Your task to perform on an android device: Open internet settings Image 0: 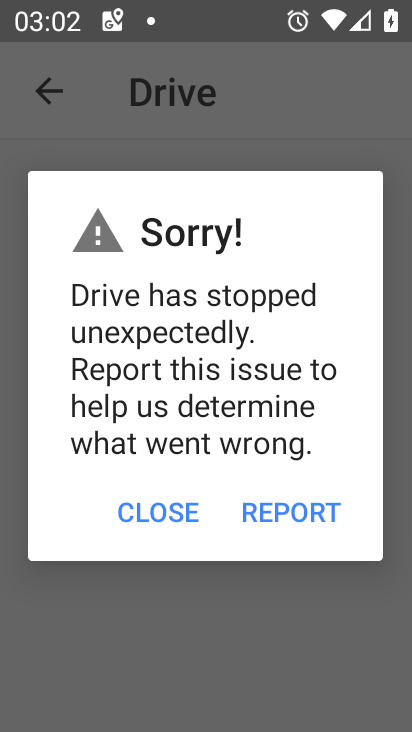
Step 0: press home button
Your task to perform on an android device: Open internet settings Image 1: 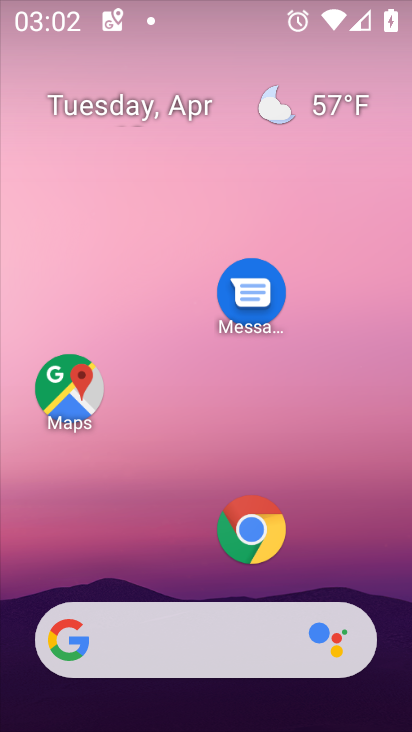
Step 1: drag from (122, 370) to (113, 87)
Your task to perform on an android device: Open internet settings Image 2: 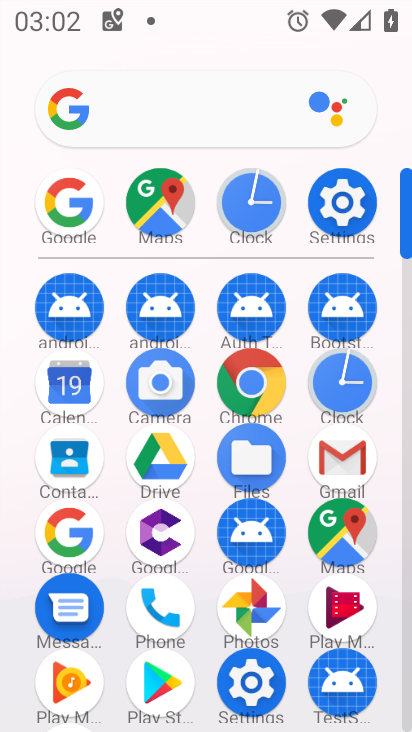
Step 2: click (335, 201)
Your task to perform on an android device: Open internet settings Image 3: 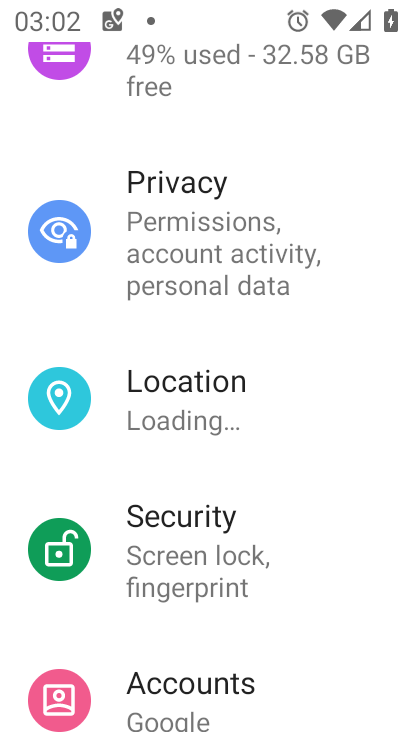
Step 3: drag from (223, 170) to (269, 600)
Your task to perform on an android device: Open internet settings Image 4: 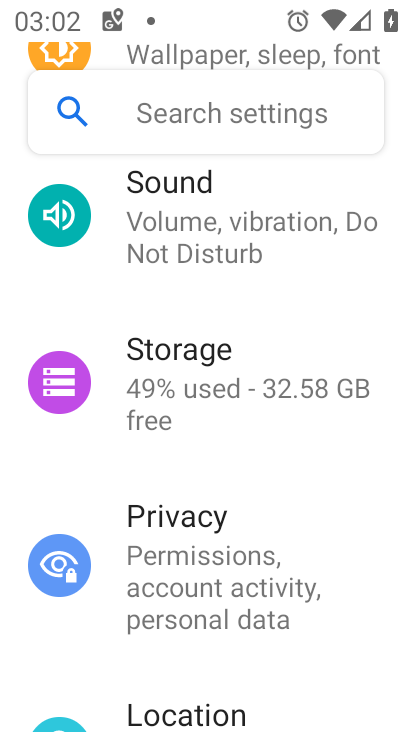
Step 4: drag from (197, 178) to (279, 614)
Your task to perform on an android device: Open internet settings Image 5: 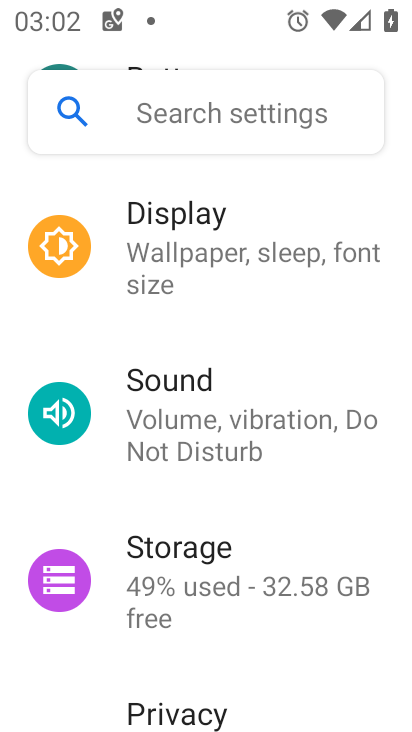
Step 5: drag from (163, 301) to (248, 598)
Your task to perform on an android device: Open internet settings Image 6: 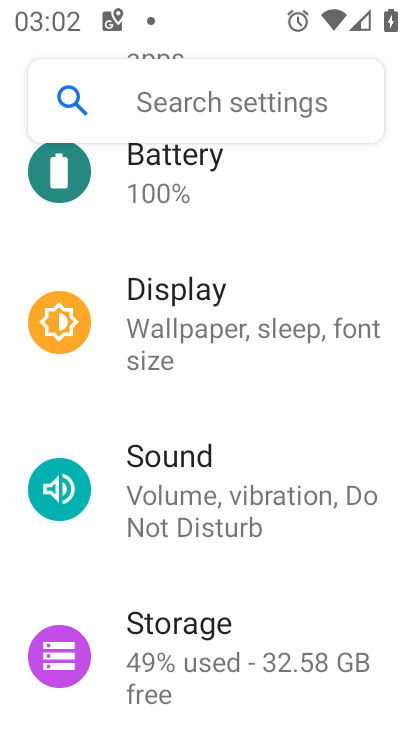
Step 6: drag from (145, 267) to (227, 649)
Your task to perform on an android device: Open internet settings Image 7: 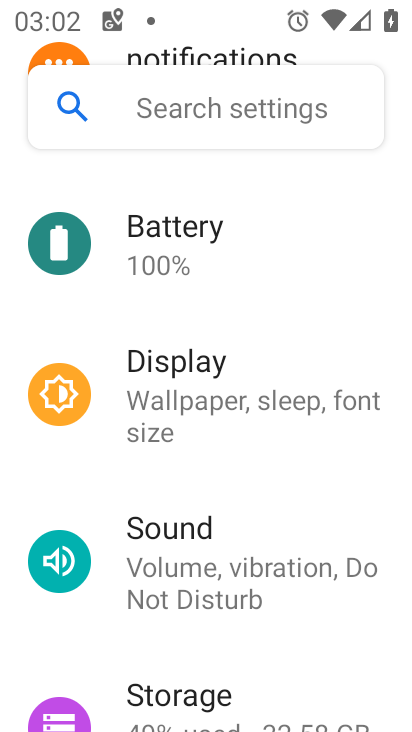
Step 7: drag from (101, 197) to (221, 604)
Your task to perform on an android device: Open internet settings Image 8: 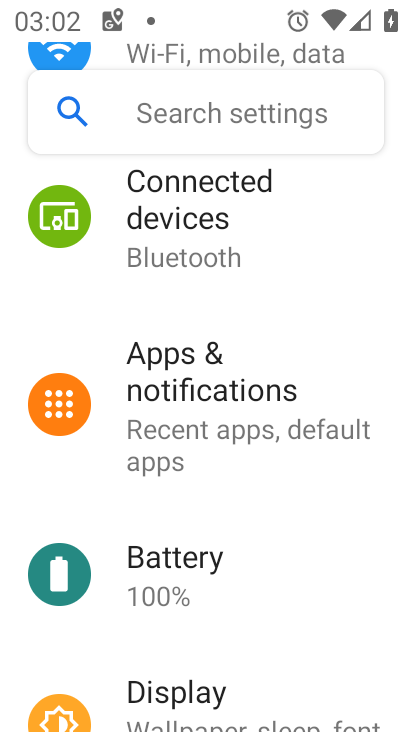
Step 8: drag from (134, 209) to (227, 582)
Your task to perform on an android device: Open internet settings Image 9: 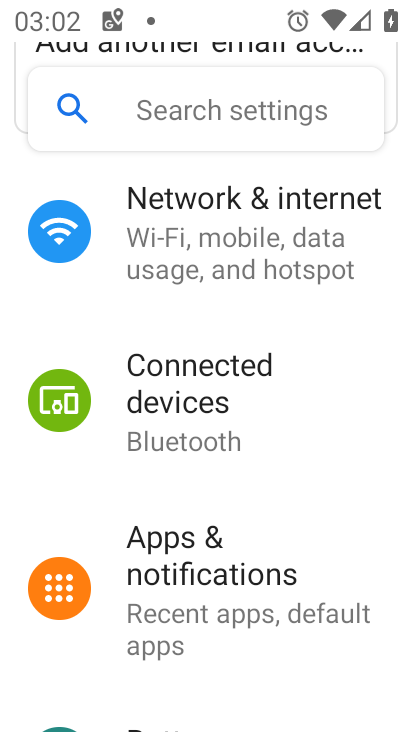
Step 9: click (170, 210)
Your task to perform on an android device: Open internet settings Image 10: 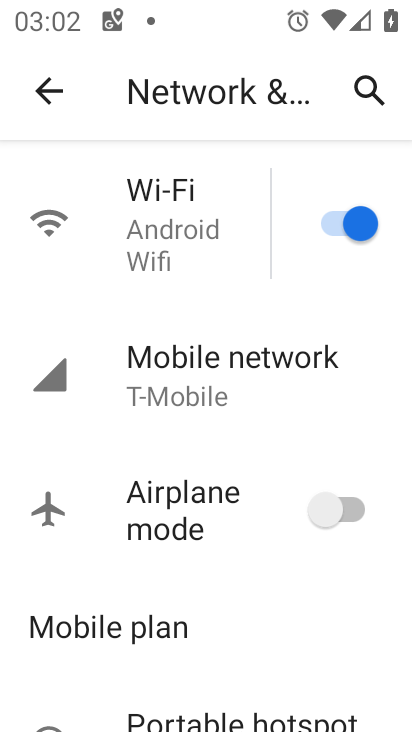
Step 10: click (143, 218)
Your task to perform on an android device: Open internet settings Image 11: 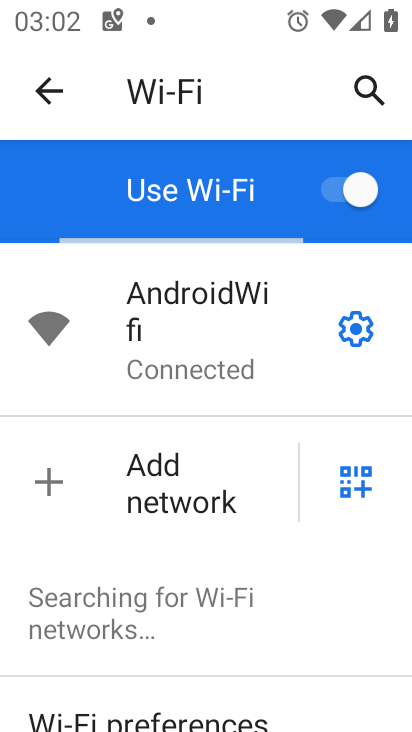
Step 11: click (353, 327)
Your task to perform on an android device: Open internet settings Image 12: 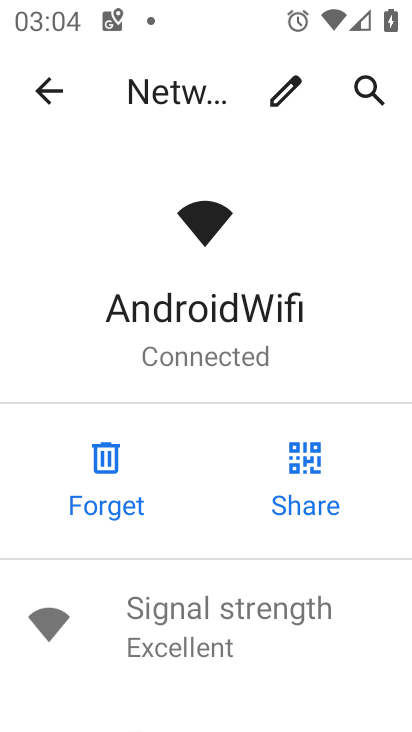
Step 12: task complete